Your task to perform on an android device: Open network settings Image 0: 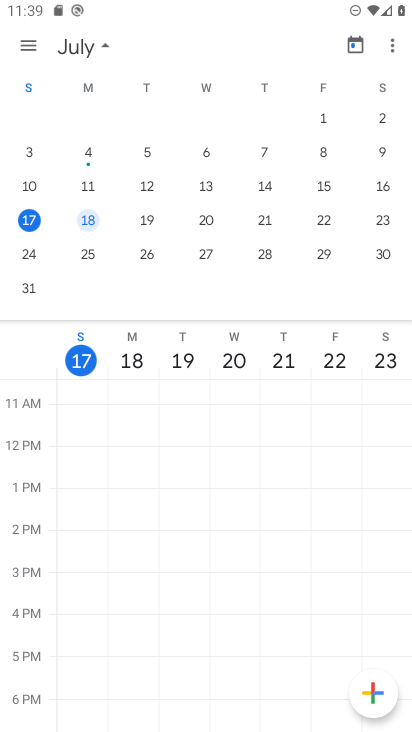
Step 0: press home button
Your task to perform on an android device: Open network settings Image 1: 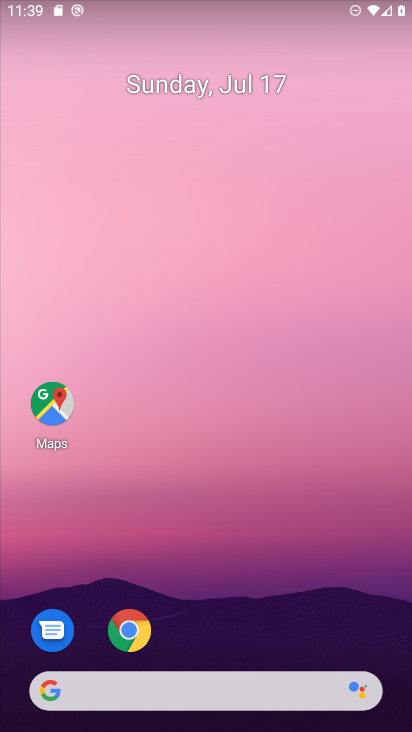
Step 1: drag from (197, 626) to (194, 212)
Your task to perform on an android device: Open network settings Image 2: 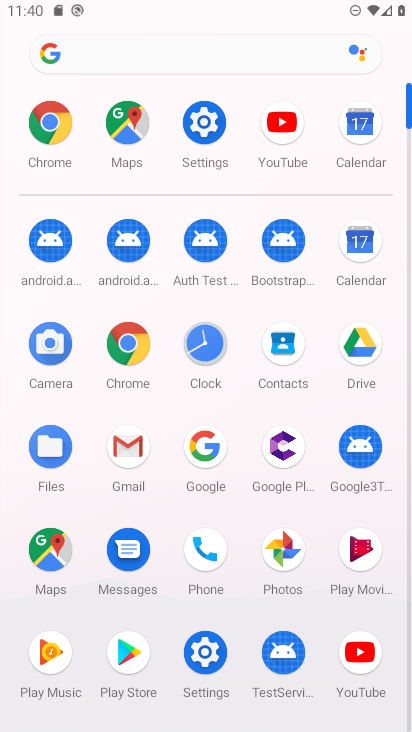
Step 2: click (194, 152)
Your task to perform on an android device: Open network settings Image 3: 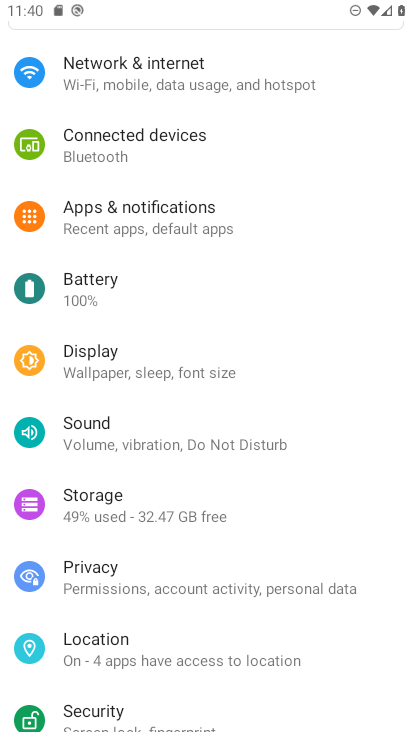
Step 3: click (164, 90)
Your task to perform on an android device: Open network settings Image 4: 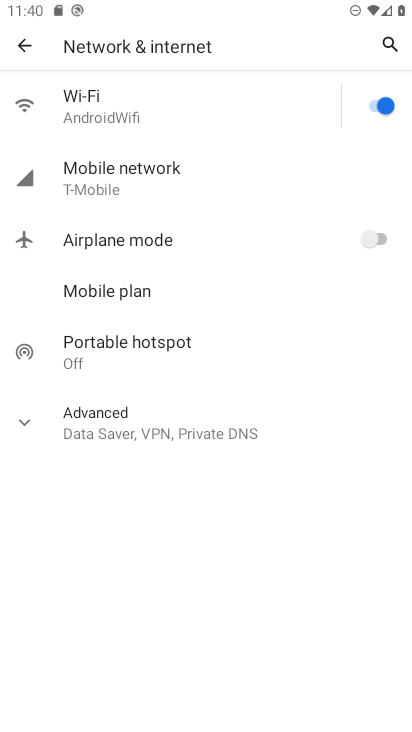
Step 4: task complete